Your task to perform on an android device: open sync settings in chrome Image 0: 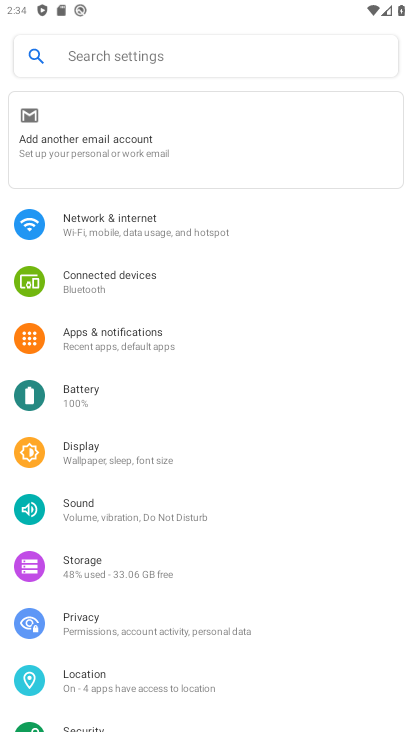
Step 0: drag from (167, 673) to (190, 243)
Your task to perform on an android device: open sync settings in chrome Image 1: 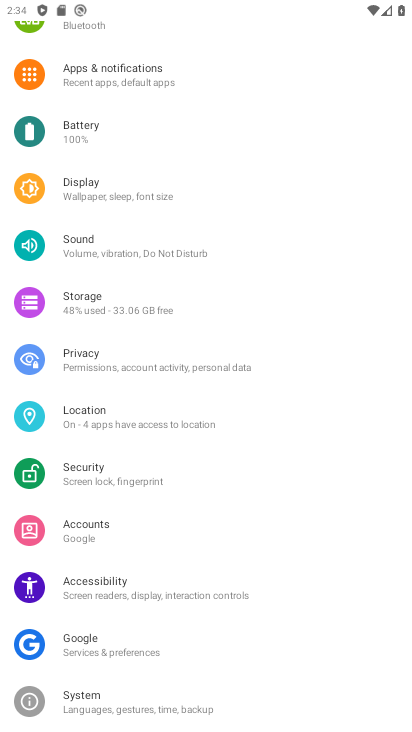
Step 1: drag from (172, 588) to (229, 298)
Your task to perform on an android device: open sync settings in chrome Image 2: 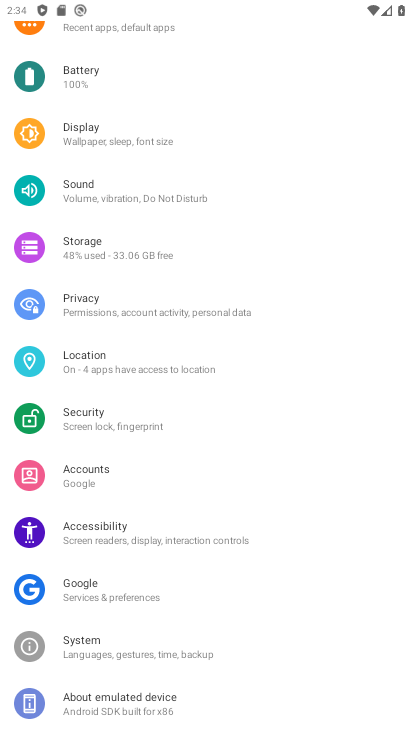
Step 2: press home button
Your task to perform on an android device: open sync settings in chrome Image 3: 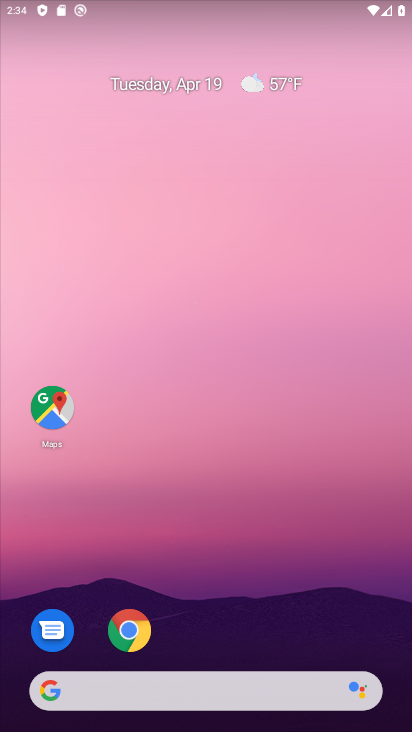
Step 3: click (135, 632)
Your task to perform on an android device: open sync settings in chrome Image 4: 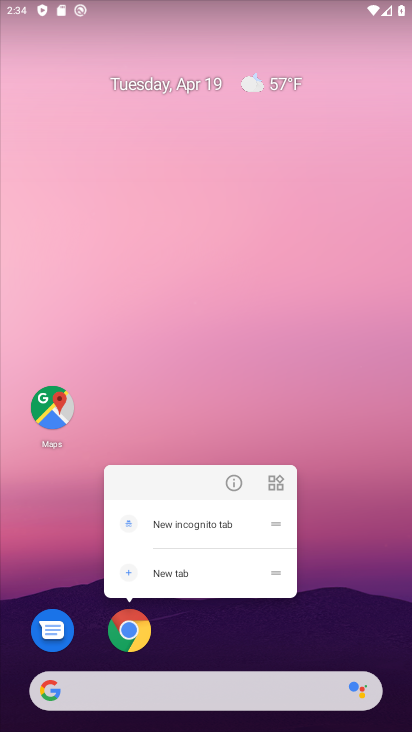
Step 4: click (134, 637)
Your task to perform on an android device: open sync settings in chrome Image 5: 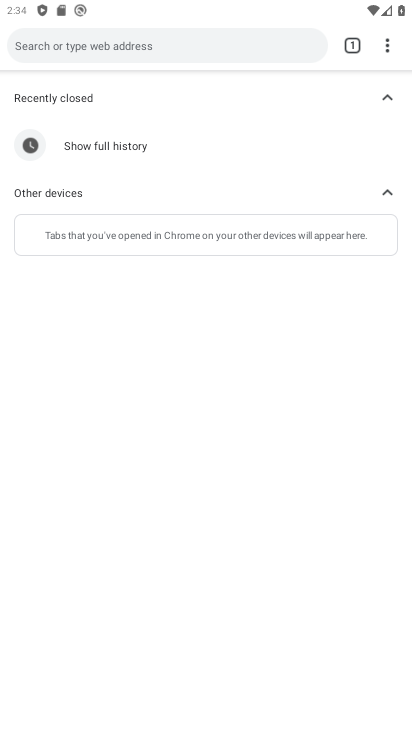
Step 5: click (382, 40)
Your task to perform on an android device: open sync settings in chrome Image 6: 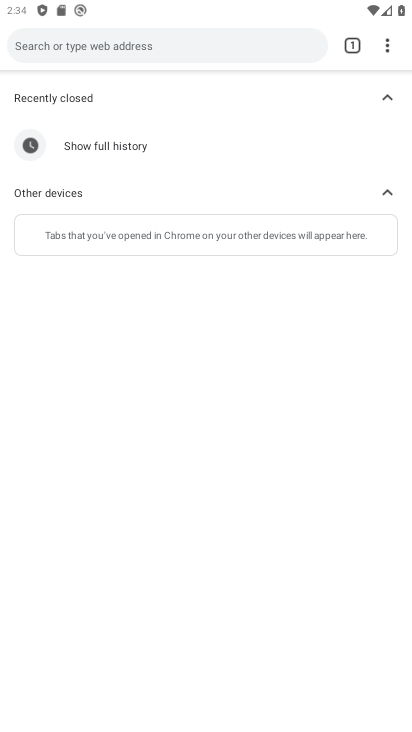
Step 6: click (383, 41)
Your task to perform on an android device: open sync settings in chrome Image 7: 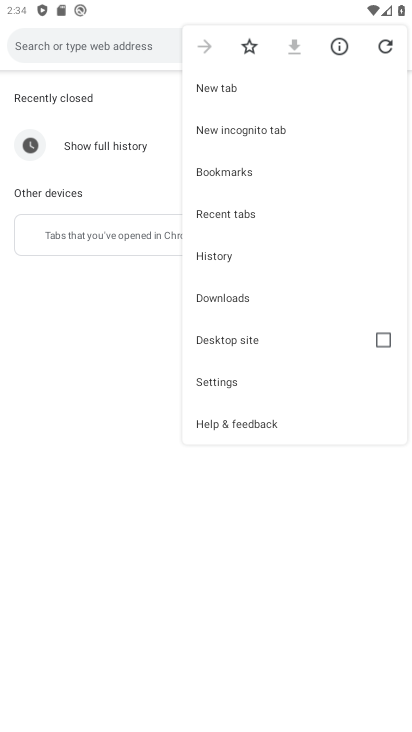
Step 7: click (234, 379)
Your task to perform on an android device: open sync settings in chrome Image 8: 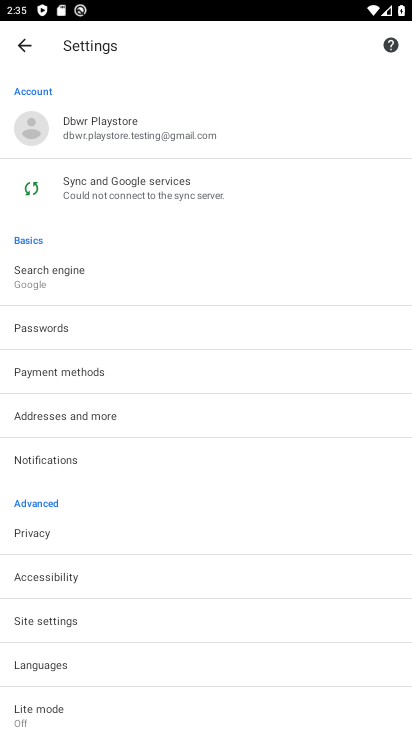
Step 8: click (150, 178)
Your task to perform on an android device: open sync settings in chrome Image 9: 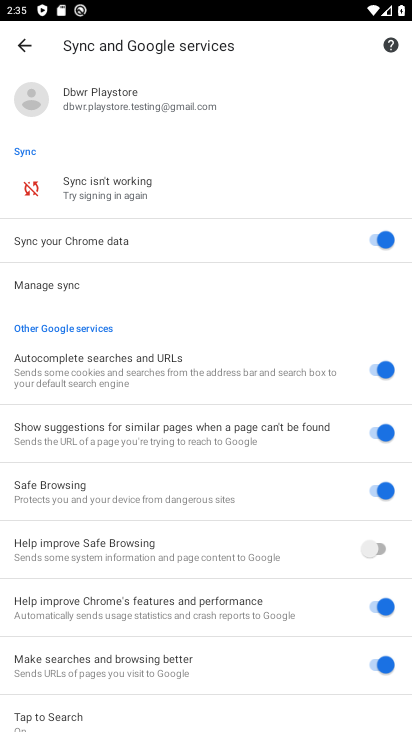
Step 9: task complete